Your task to perform on an android device: Open calendar and show me the third week of next month Image 0: 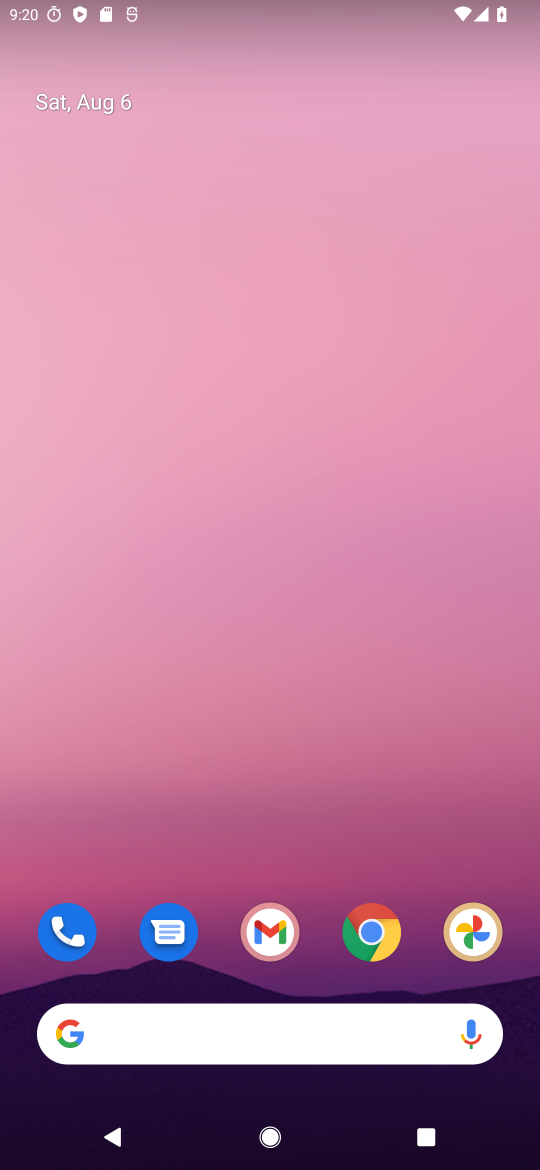
Step 0: drag from (252, 995) to (270, 366)
Your task to perform on an android device: Open calendar and show me the third week of next month Image 1: 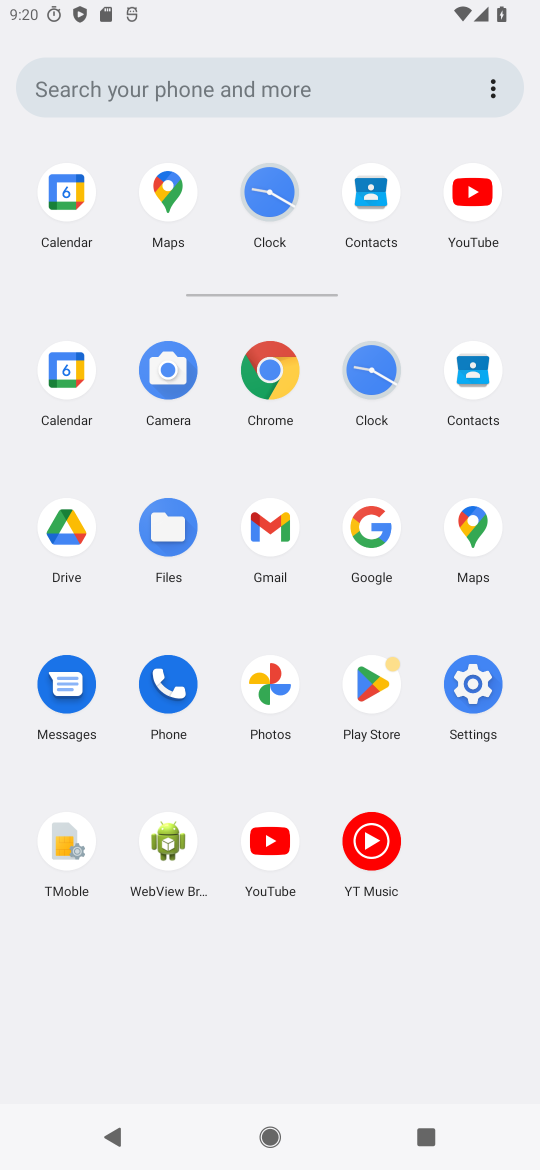
Step 1: click (65, 376)
Your task to perform on an android device: Open calendar and show me the third week of next month Image 2: 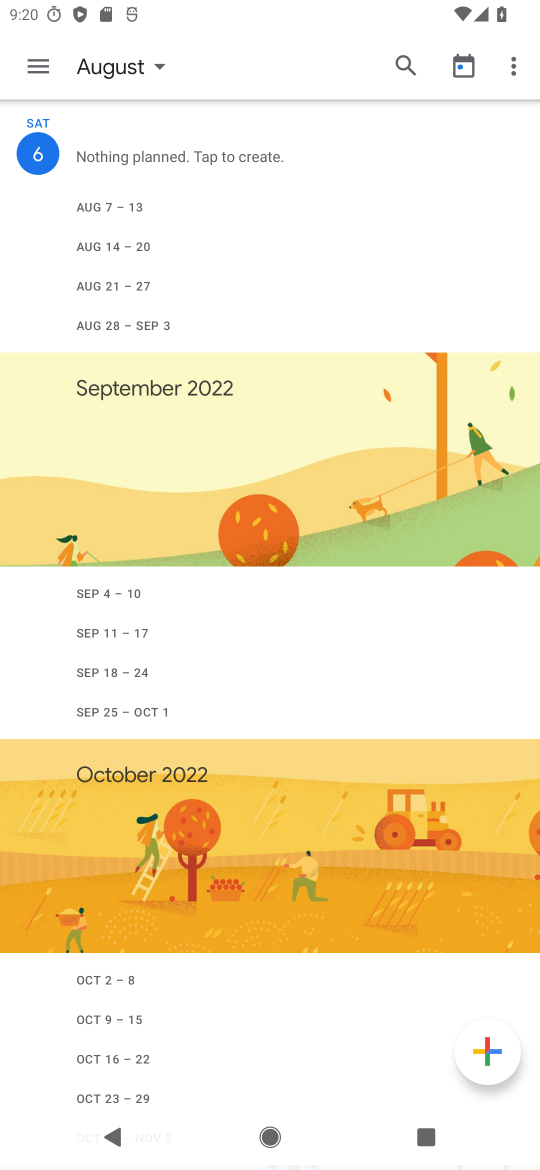
Step 2: click (113, 62)
Your task to perform on an android device: Open calendar and show me the third week of next month Image 3: 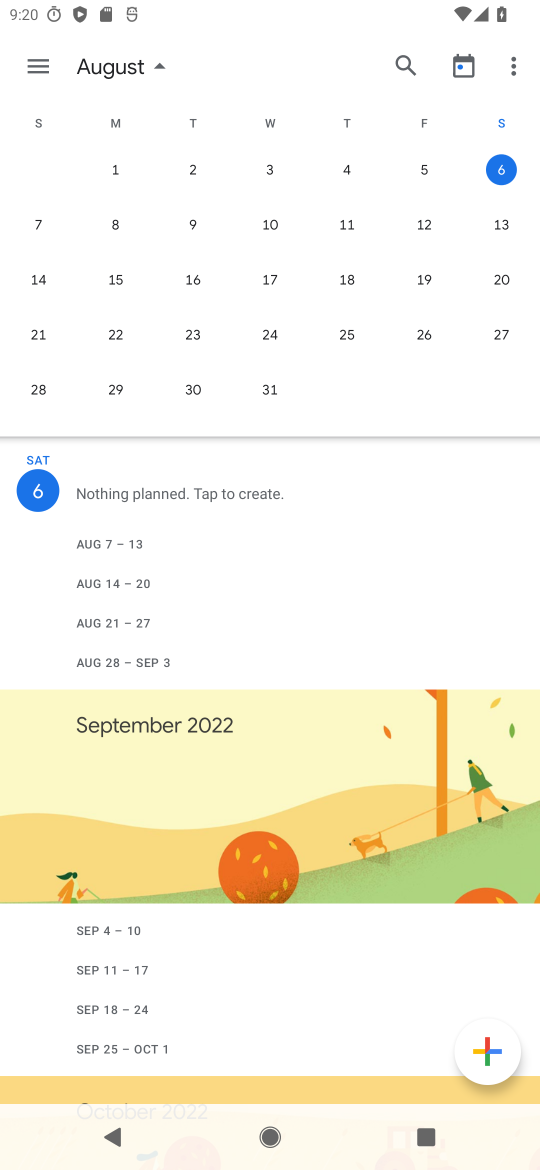
Step 3: drag from (503, 289) to (18, 350)
Your task to perform on an android device: Open calendar and show me the third week of next month Image 4: 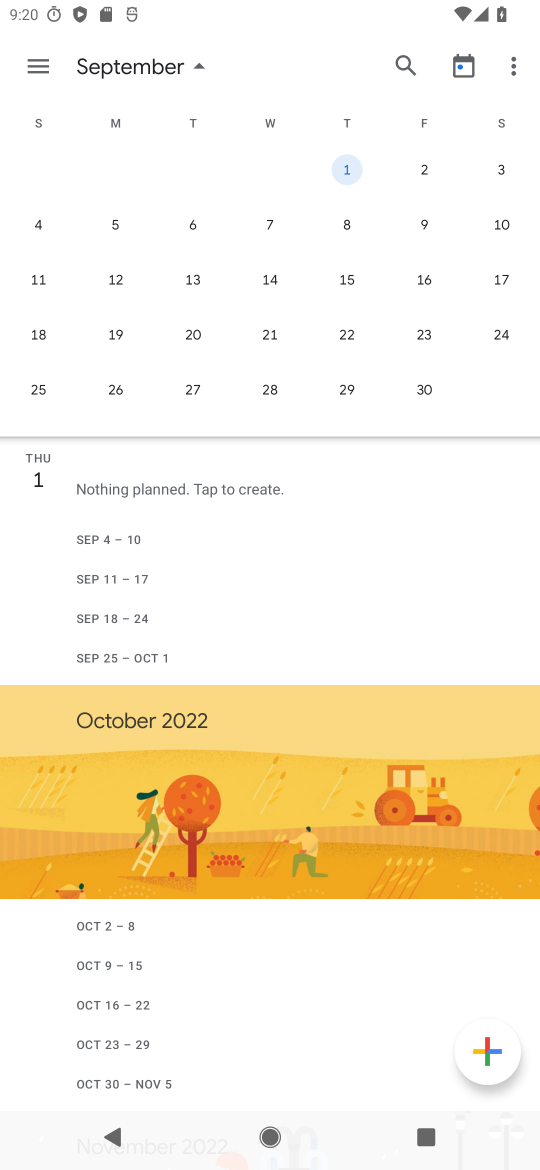
Step 4: click (36, 278)
Your task to perform on an android device: Open calendar and show me the third week of next month Image 5: 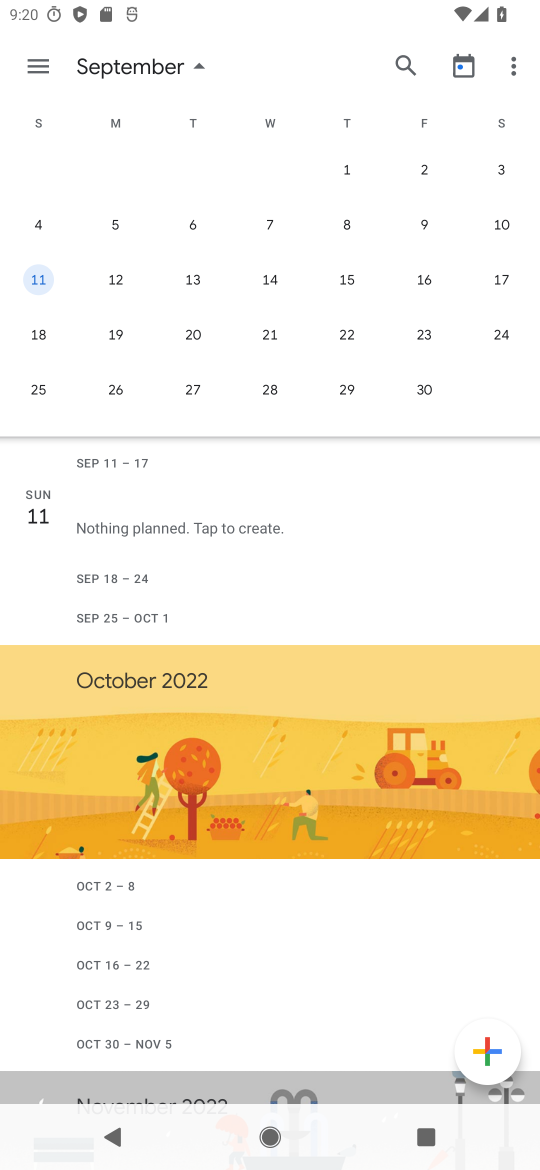
Step 5: click (33, 53)
Your task to perform on an android device: Open calendar and show me the third week of next month Image 6: 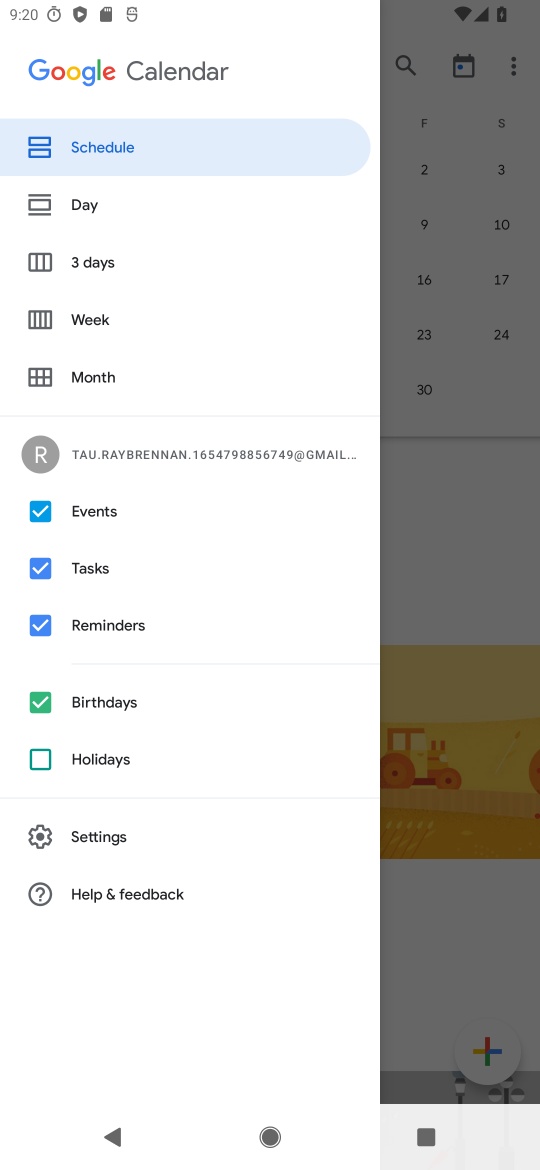
Step 6: click (102, 322)
Your task to perform on an android device: Open calendar and show me the third week of next month Image 7: 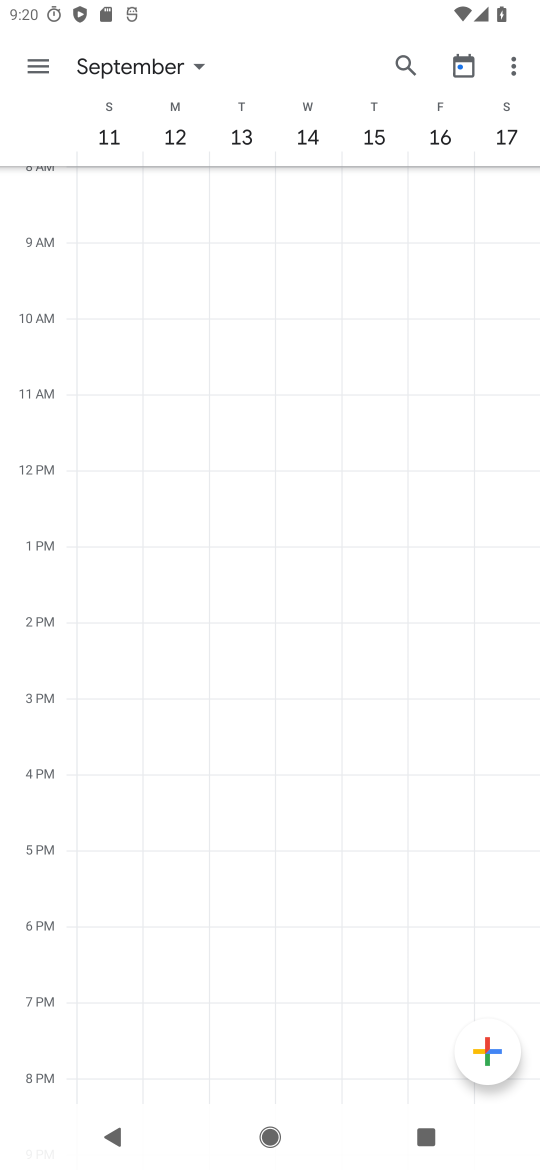
Step 7: task complete